Your task to perform on an android device: choose inbox layout in the gmail app Image 0: 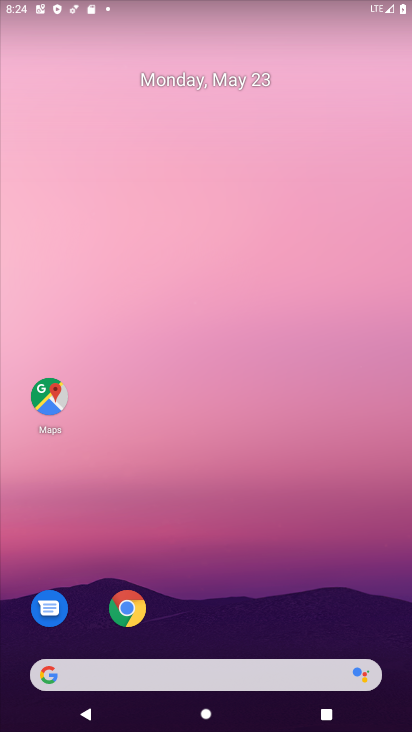
Step 0: drag from (209, 666) to (246, 216)
Your task to perform on an android device: choose inbox layout in the gmail app Image 1: 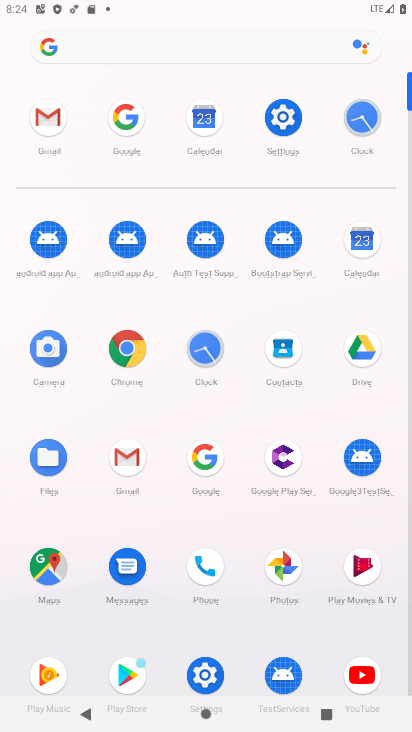
Step 1: click (136, 451)
Your task to perform on an android device: choose inbox layout in the gmail app Image 2: 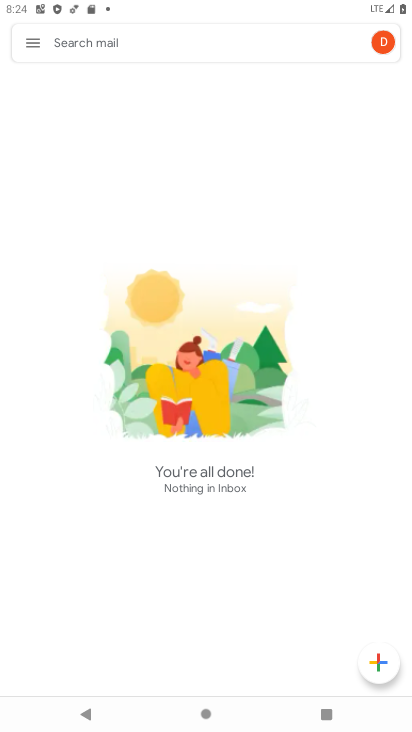
Step 2: click (33, 39)
Your task to perform on an android device: choose inbox layout in the gmail app Image 3: 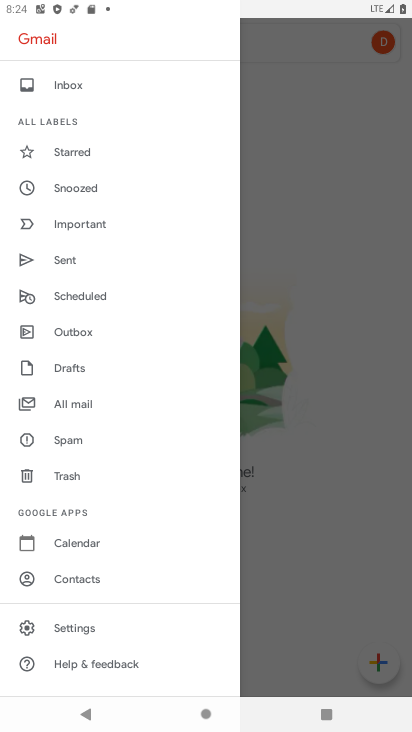
Step 3: click (78, 627)
Your task to perform on an android device: choose inbox layout in the gmail app Image 4: 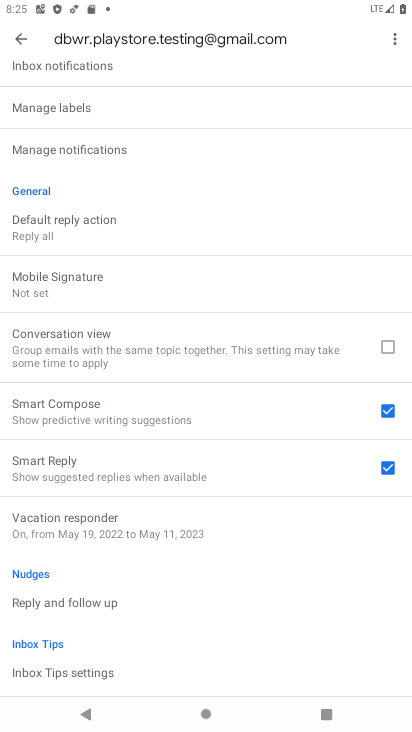
Step 4: drag from (107, 159) to (121, 699)
Your task to perform on an android device: choose inbox layout in the gmail app Image 5: 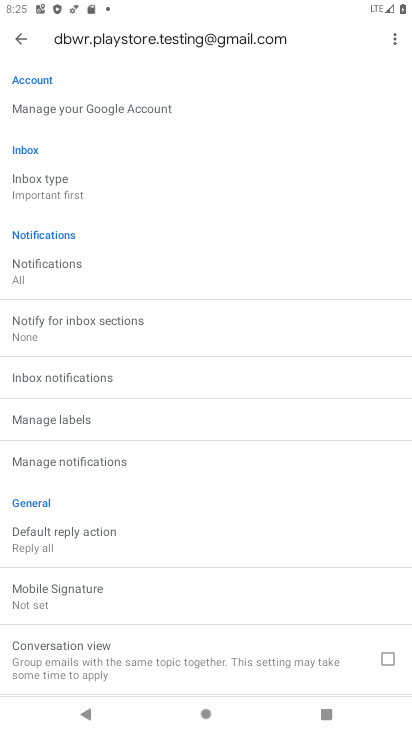
Step 5: click (68, 180)
Your task to perform on an android device: choose inbox layout in the gmail app Image 6: 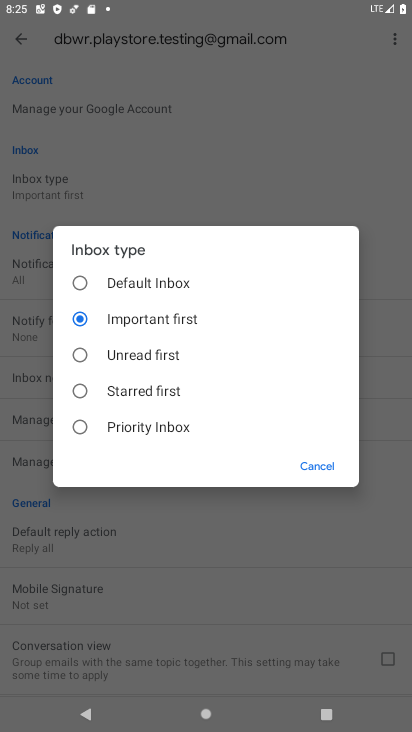
Step 6: click (132, 284)
Your task to perform on an android device: choose inbox layout in the gmail app Image 7: 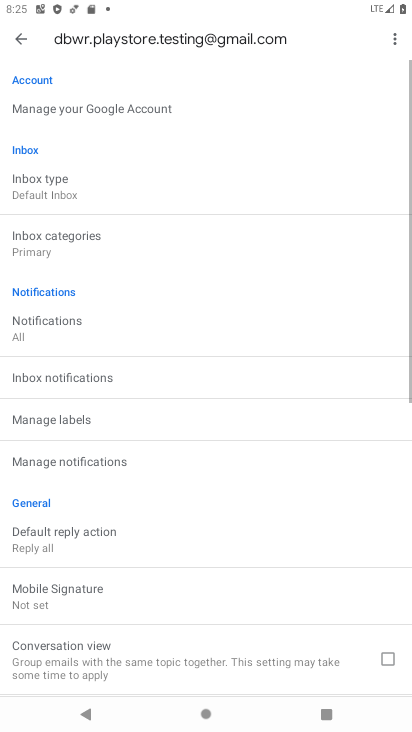
Step 7: task complete